Your task to perform on an android device: What's the weather? Image 0: 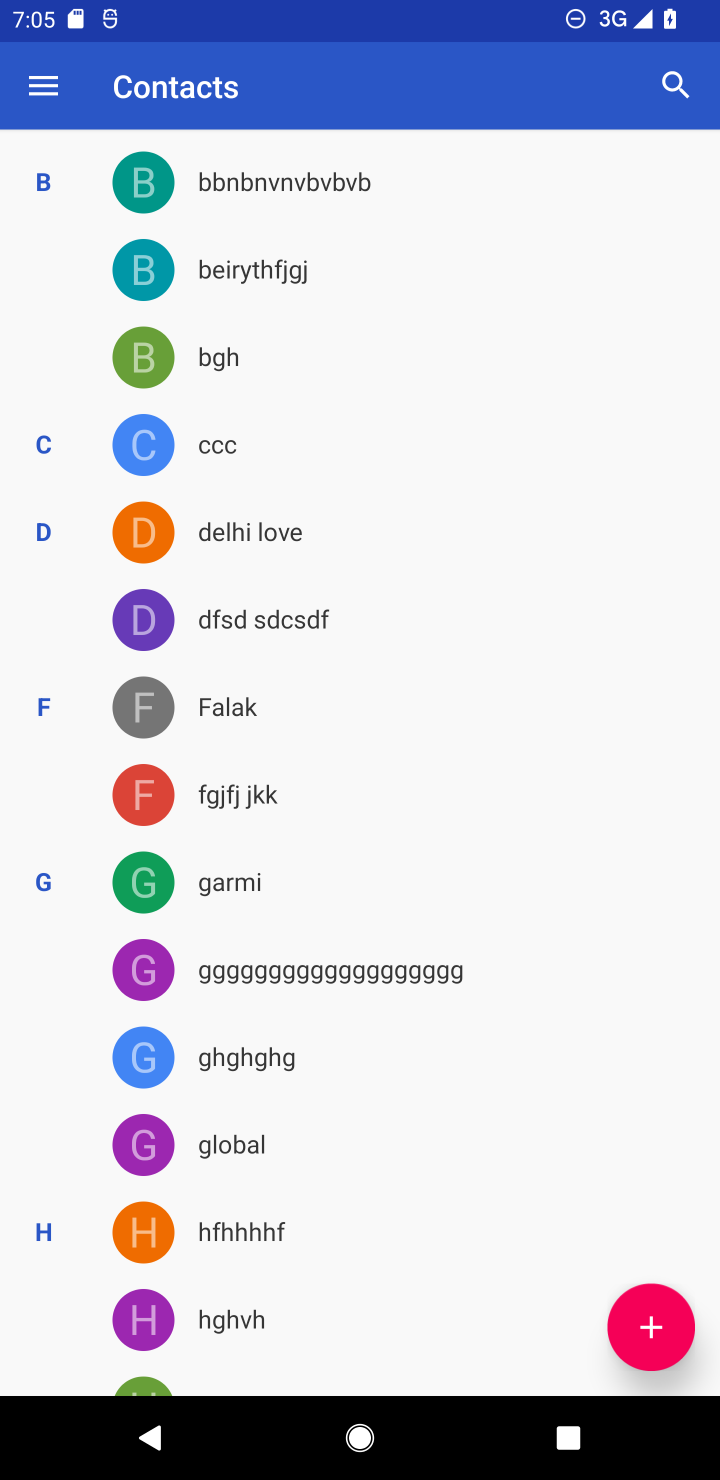
Step 0: press home button
Your task to perform on an android device: What's the weather? Image 1: 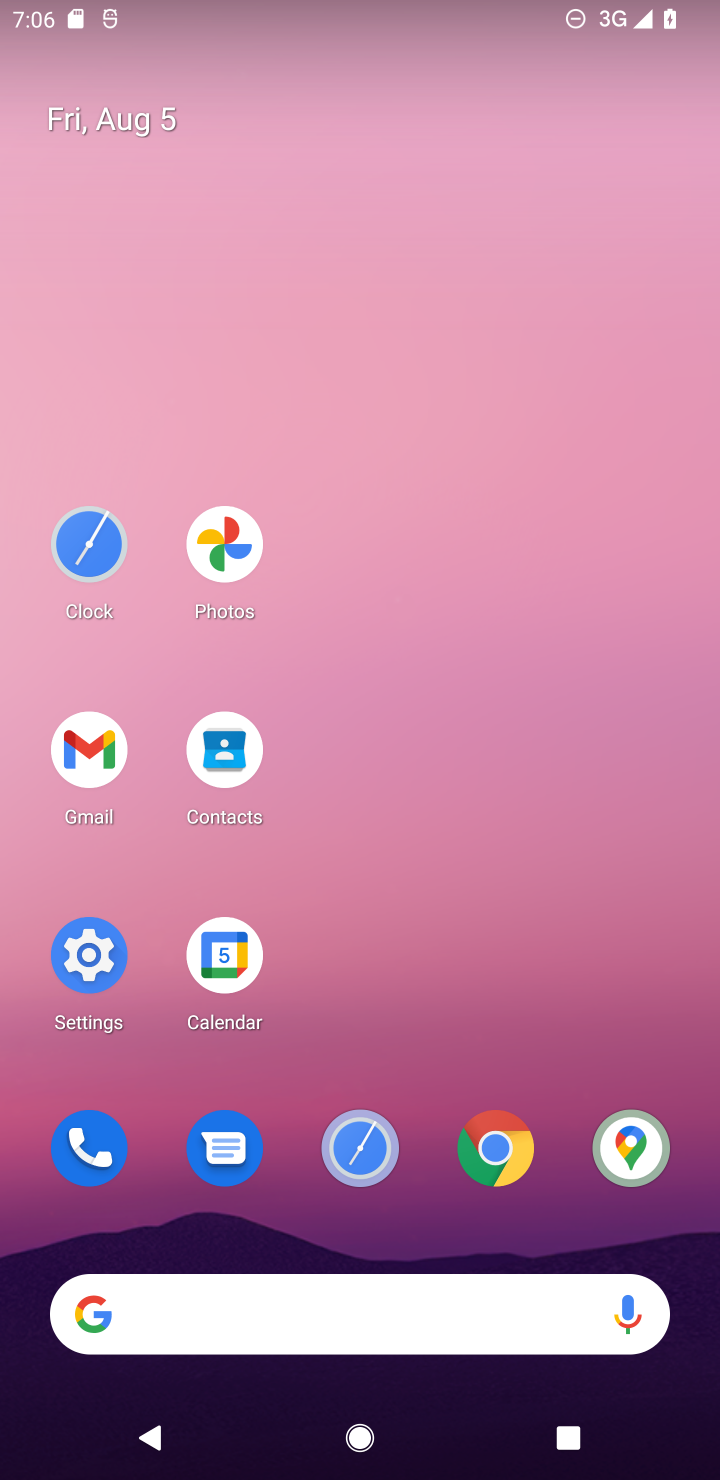
Step 1: click (348, 1309)
Your task to perform on an android device: What's the weather? Image 2: 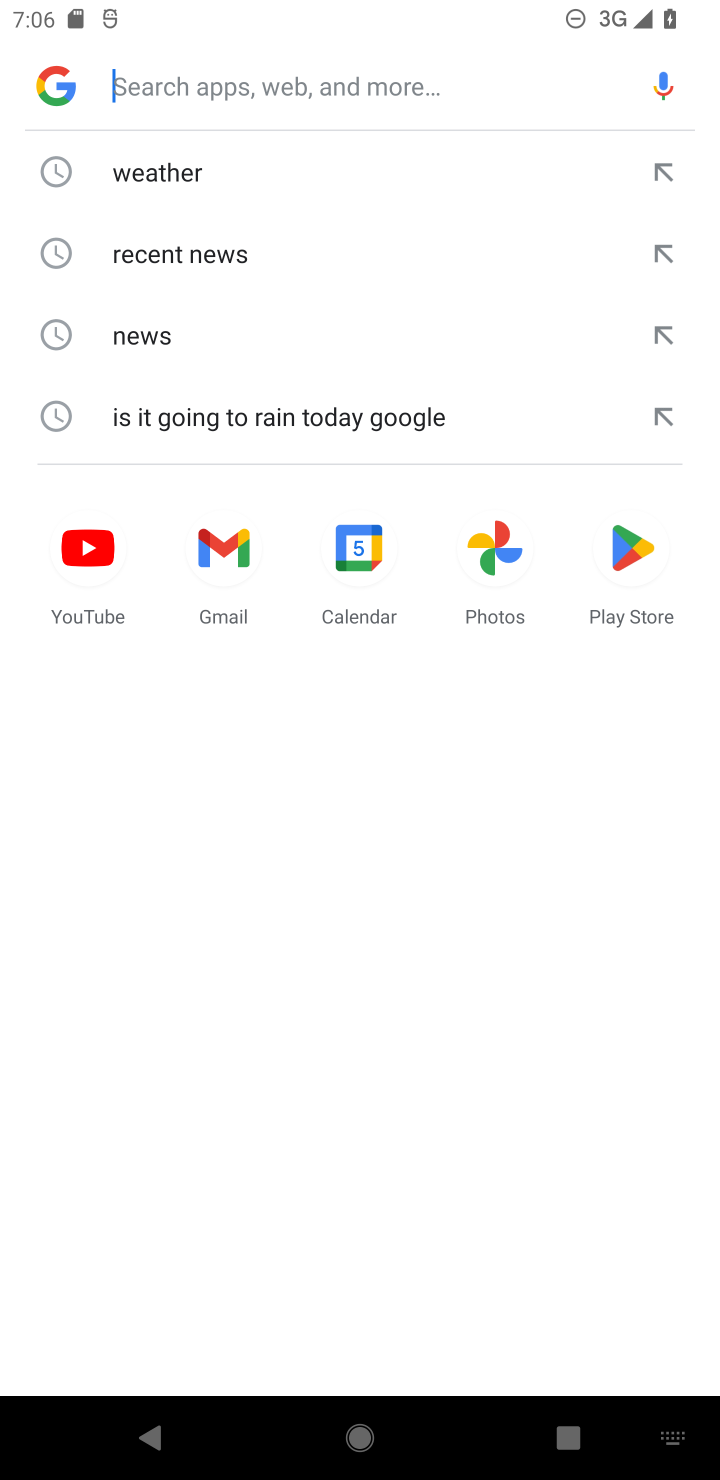
Step 2: click (141, 161)
Your task to perform on an android device: What's the weather? Image 3: 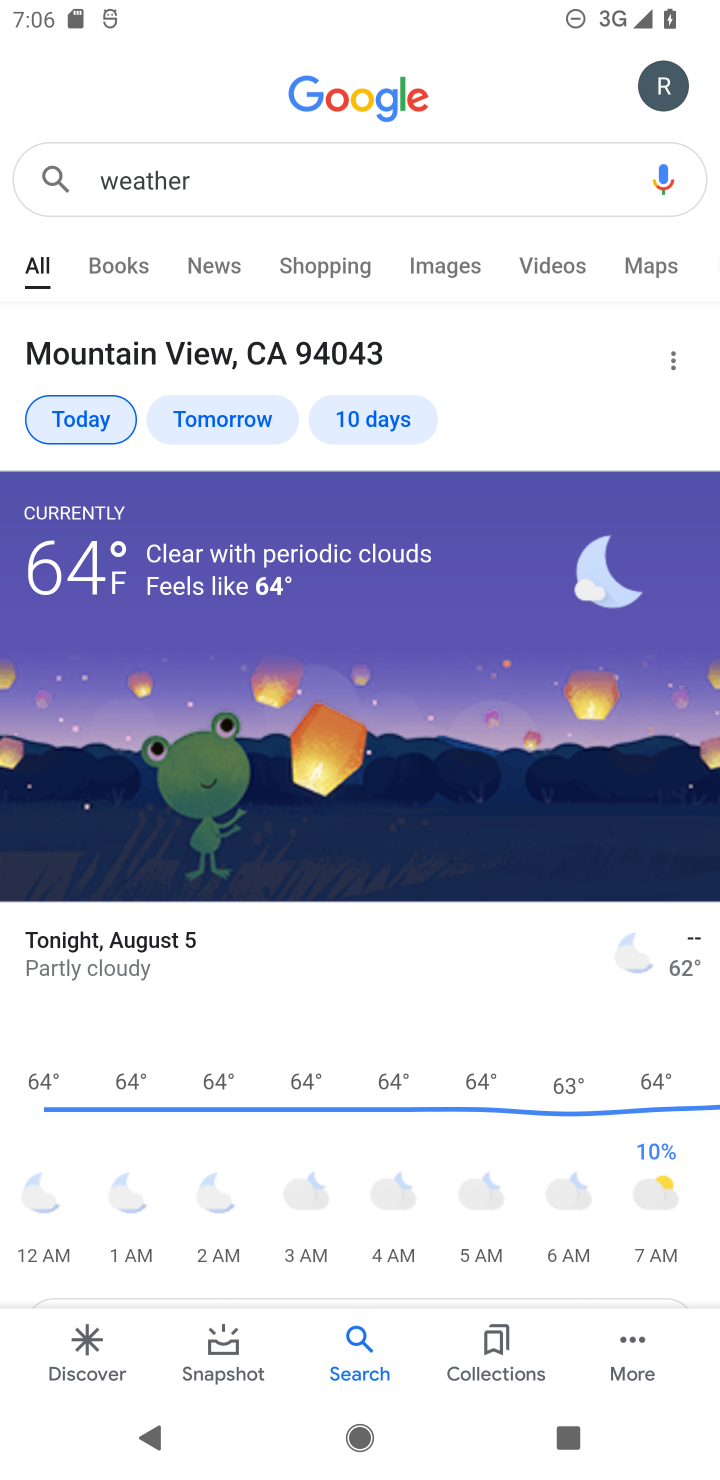
Step 3: task complete